Your task to perform on an android device: toggle sleep mode Image 0: 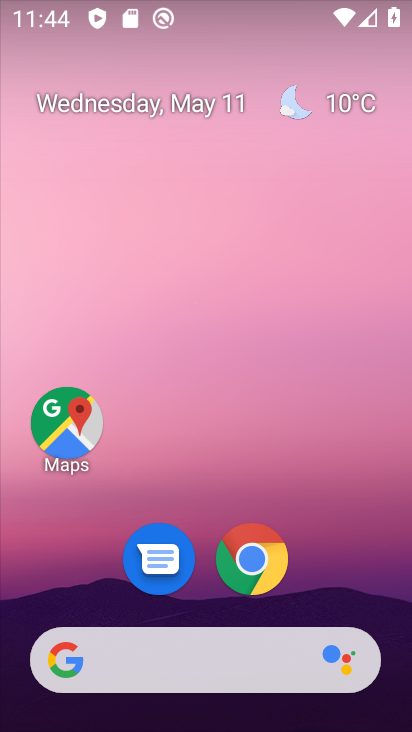
Step 0: drag from (334, 585) to (269, 154)
Your task to perform on an android device: toggle sleep mode Image 1: 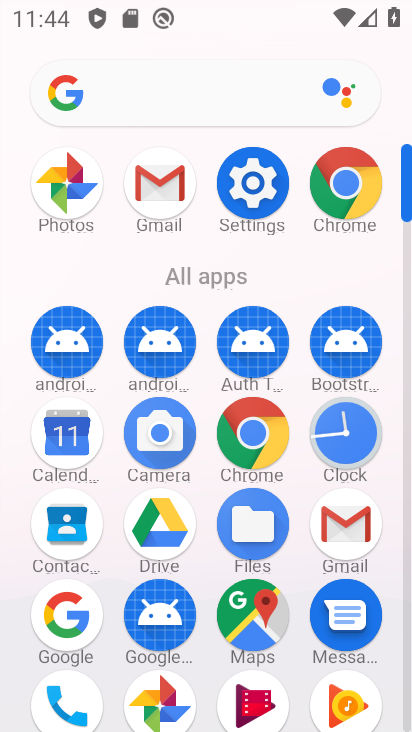
Step 1: click (245, 208)
Your task to perform on an android device: toggle sleep mode Image 2: 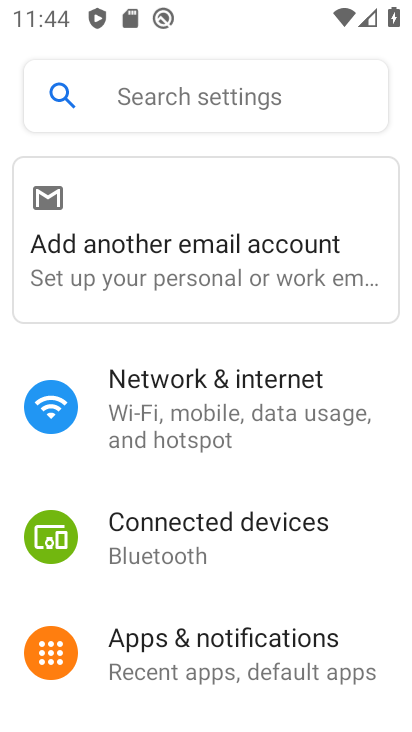
Step 2: task complete